Your task to perform on an android device: change notification settings in the gmail app Image 0: 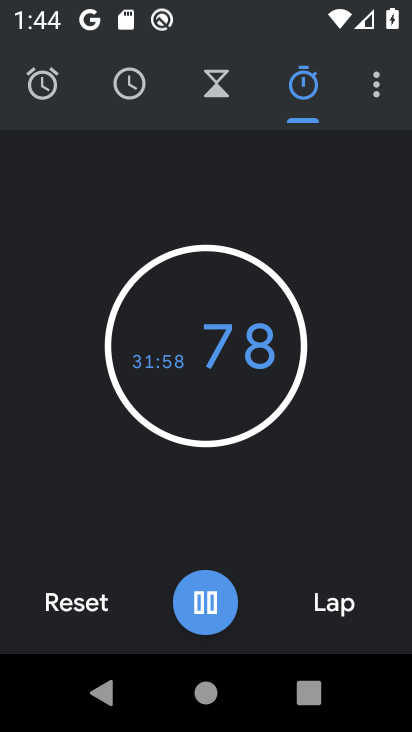
Step 0: press home button
Your task to perform on an android device: change notification settings in the gmail app Image 1: 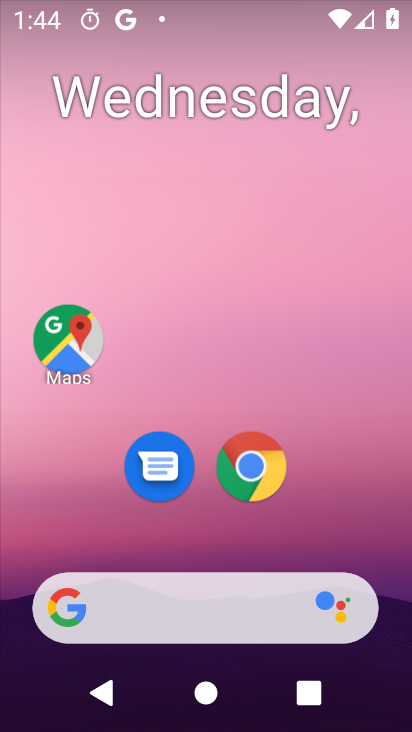
Step 1: drag from (294, 519) to (344, 150)
Your task to perform on an android device: change notification settings in the gmail app Image 2: 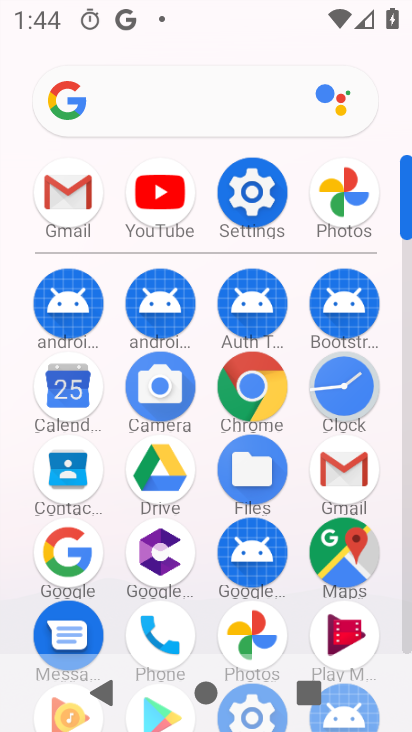
Step 2: click (71, 208)
Your task to perform on an android device: change notification settings in the gmail app Image 3: 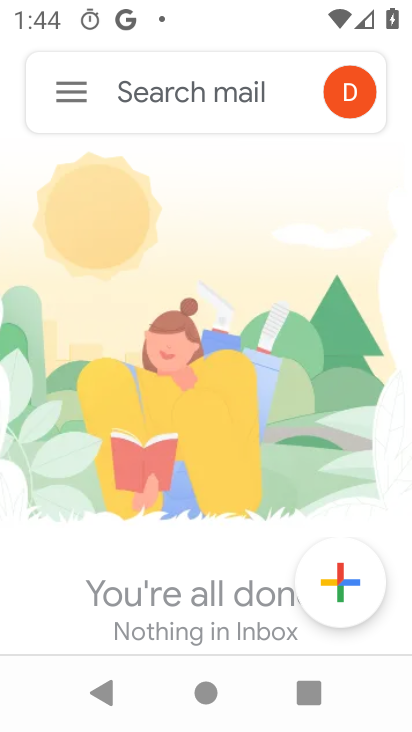
Step 3: click (71, 87)
Your task to perform on an android device: change notification settings in the gmail app Image 4: 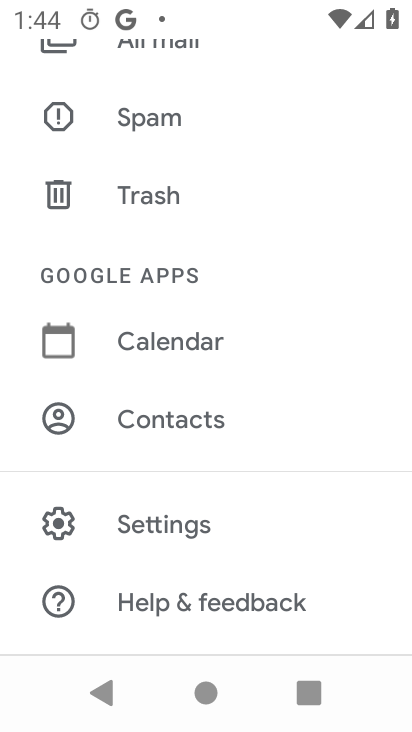
Step 4: click (145, 511)
Your task to perform on an android device: change notification settings in the gmail app Image 5: 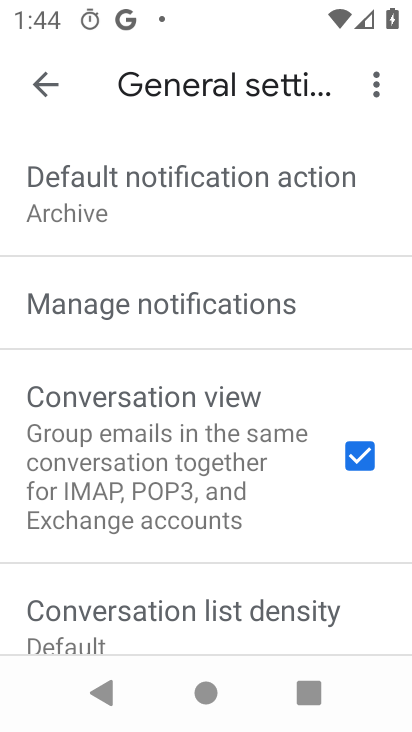
Step 5: click (180, 289)
Your task to perform on an android device: change notification settings in the gmail app Image 6: 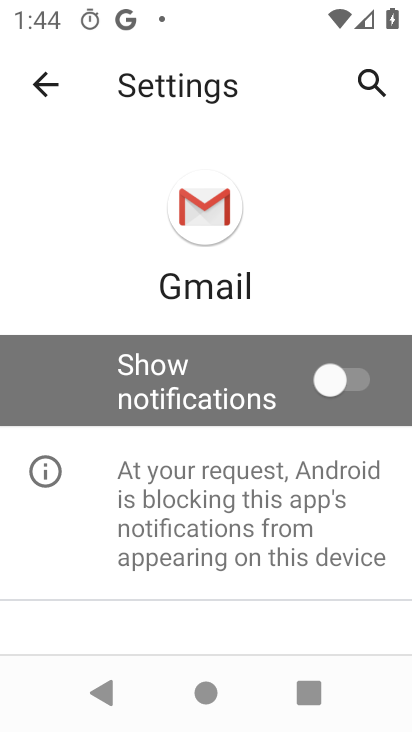
Step 6: drag from (234, 552) to (229, 204)
Your task to perform on an android device: change notification settings in the gmail app Image 7: 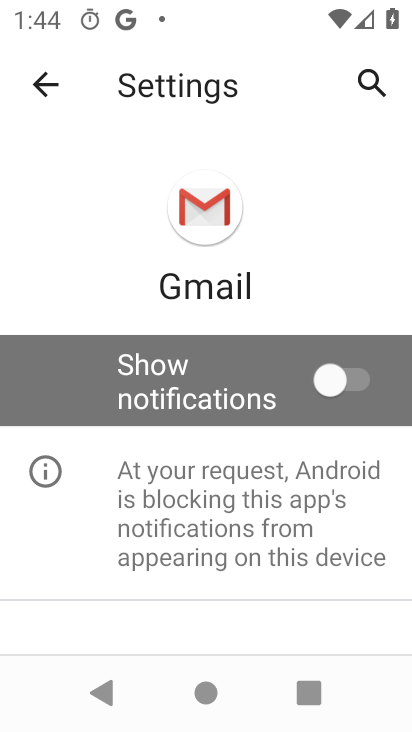
Step 7: click (345, 380)
Your task to perform on an android device: change notification settings in the gmail app Image 8: 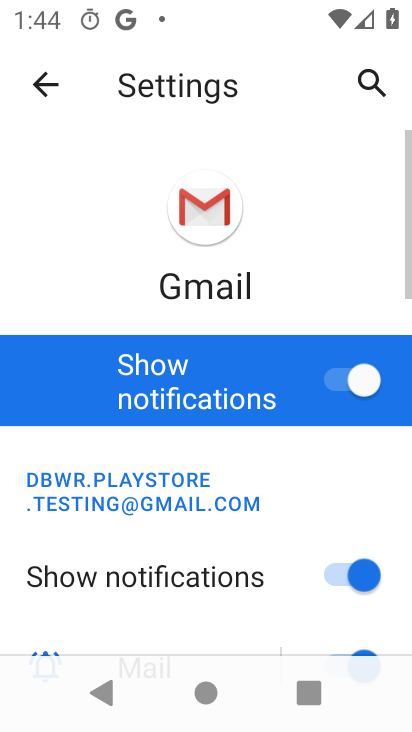
Step 8: task complete